Your task to perform on an android device: change the clock display to digital Image 0: 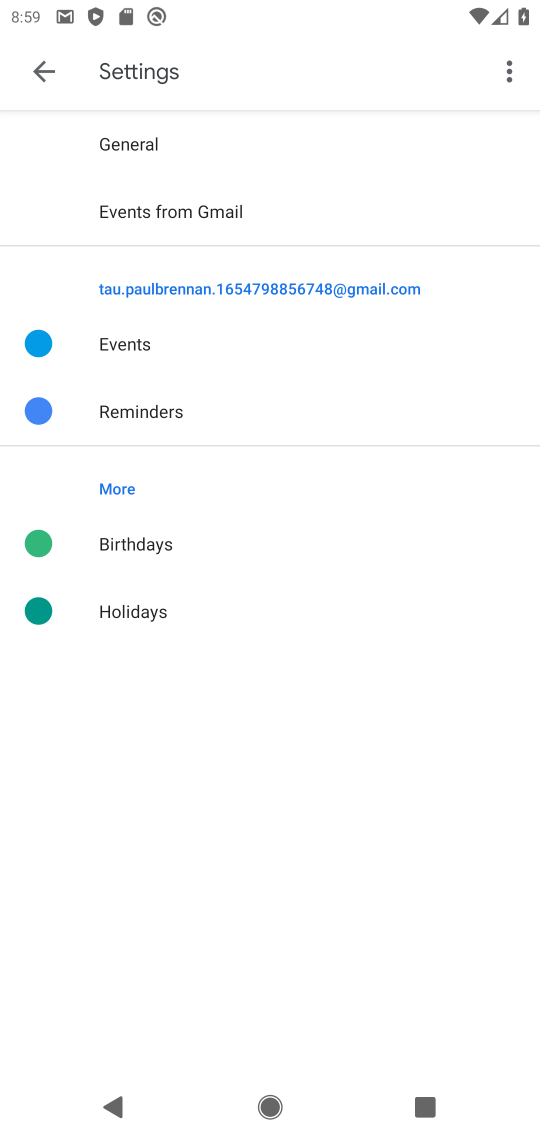
Step 0: press home button
Your task to perform on an android device: change the clock display to digital Image 1: 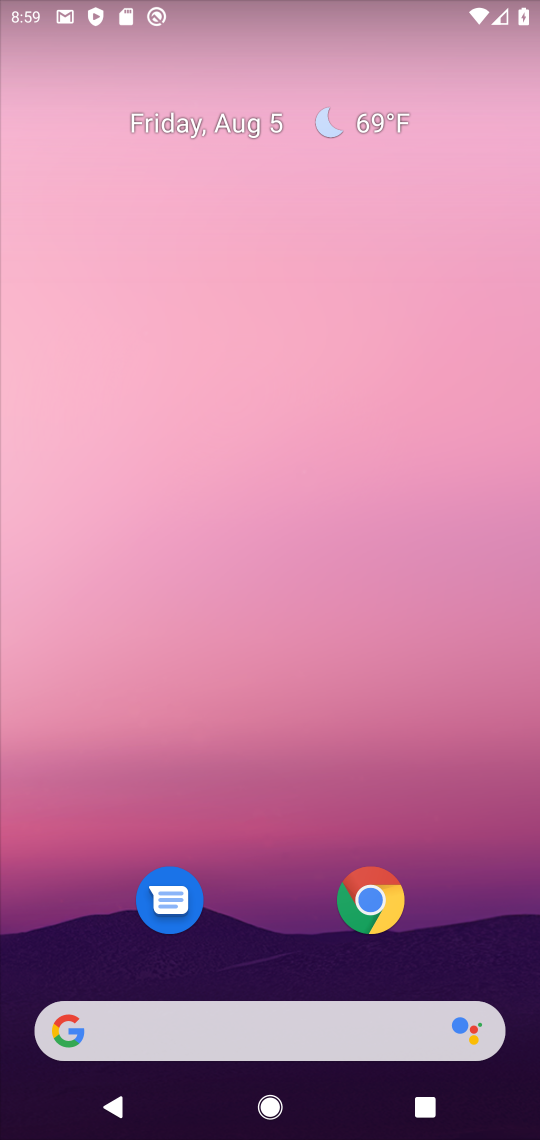
Step 1: drag from (226, 982) to (218, 341)
Your task to perform on an android device: change the clock display to digital Image 2: 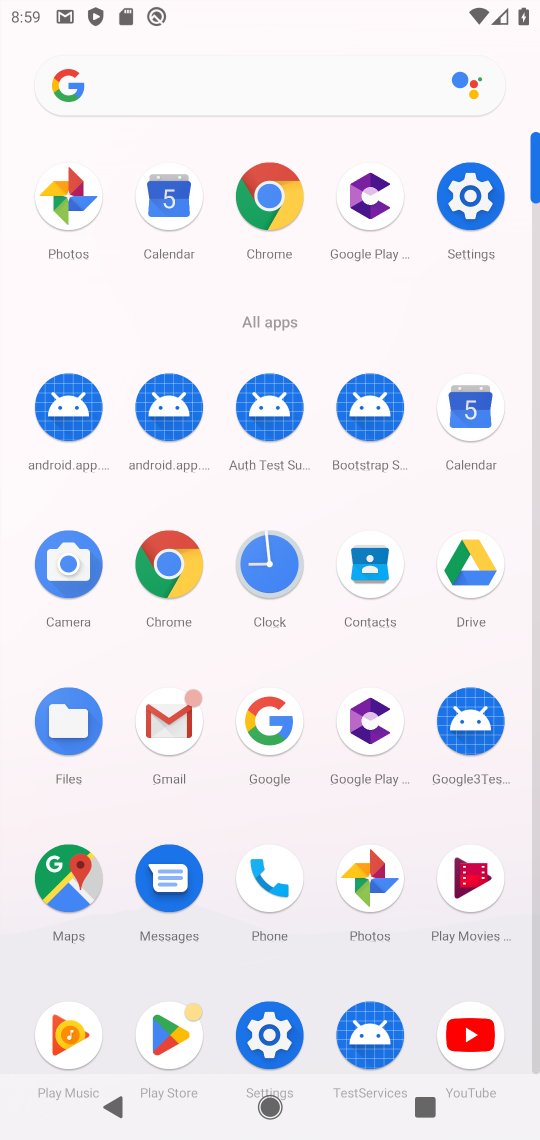
Step 2: click (279, 574)
Your task to perform on an android device: change the clock display to digital Image 3: 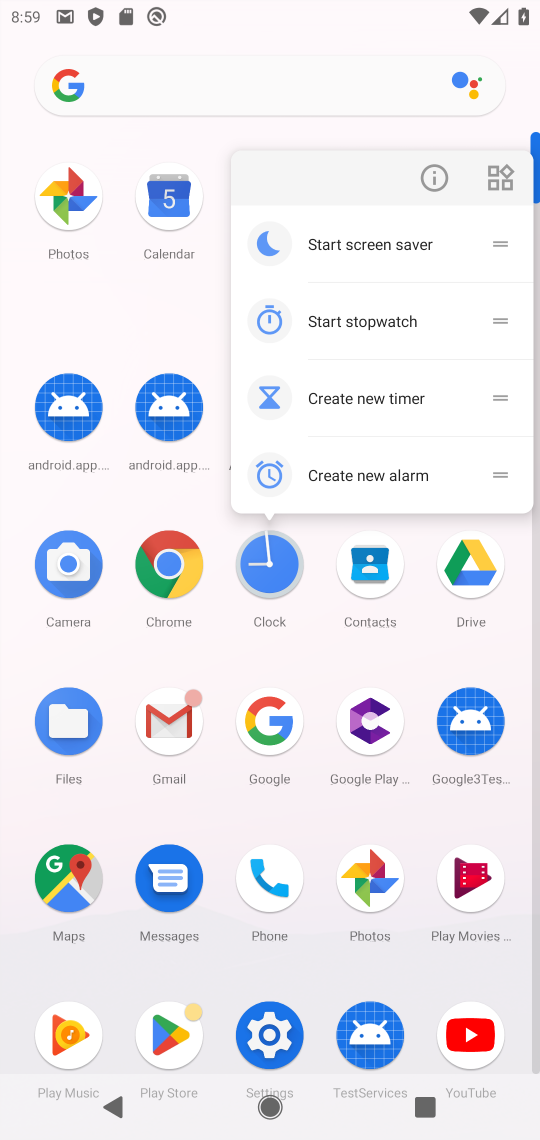
Step 3: click (279, 574)
Your task to perform on an android device: change the clock display to digital Image 4: 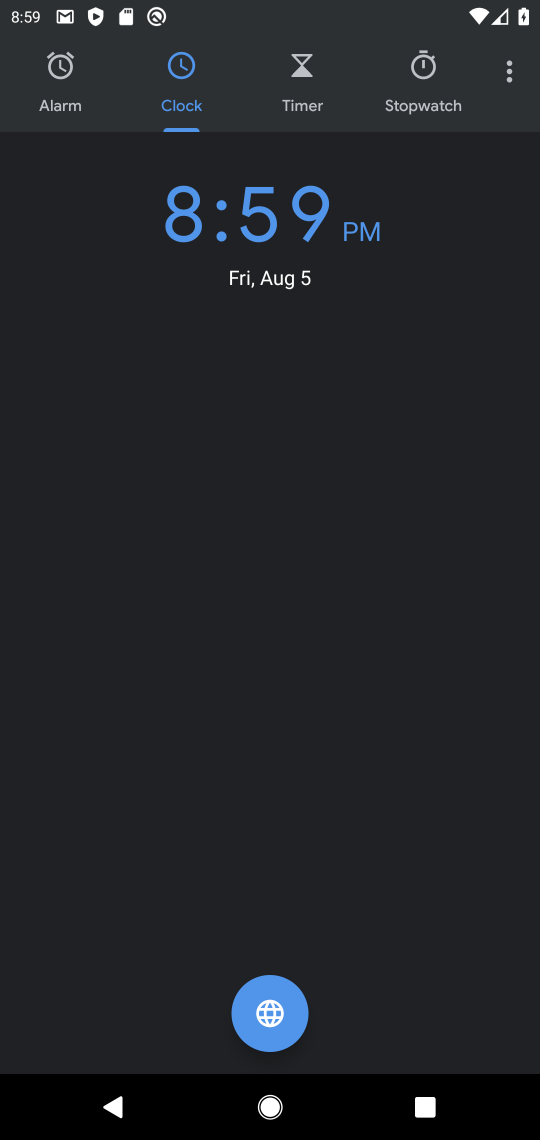
Step 4: click (51, 91)
Your task to perform on an android device: change the clock display to digital Image 5: 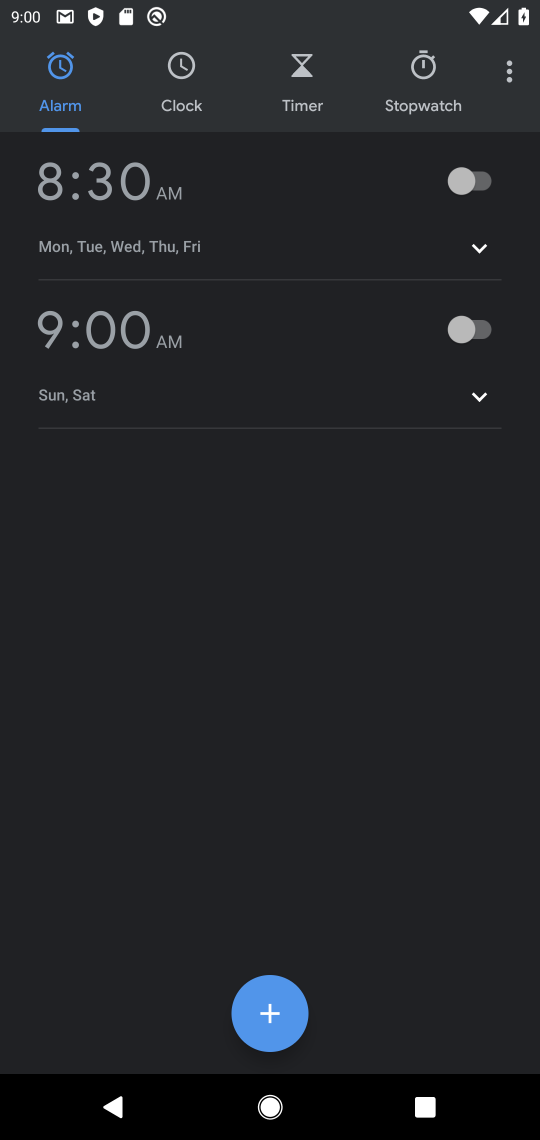
Step 5: click (507, 73)
Your task to perform on an android device: change the clock display to digital Image 6: 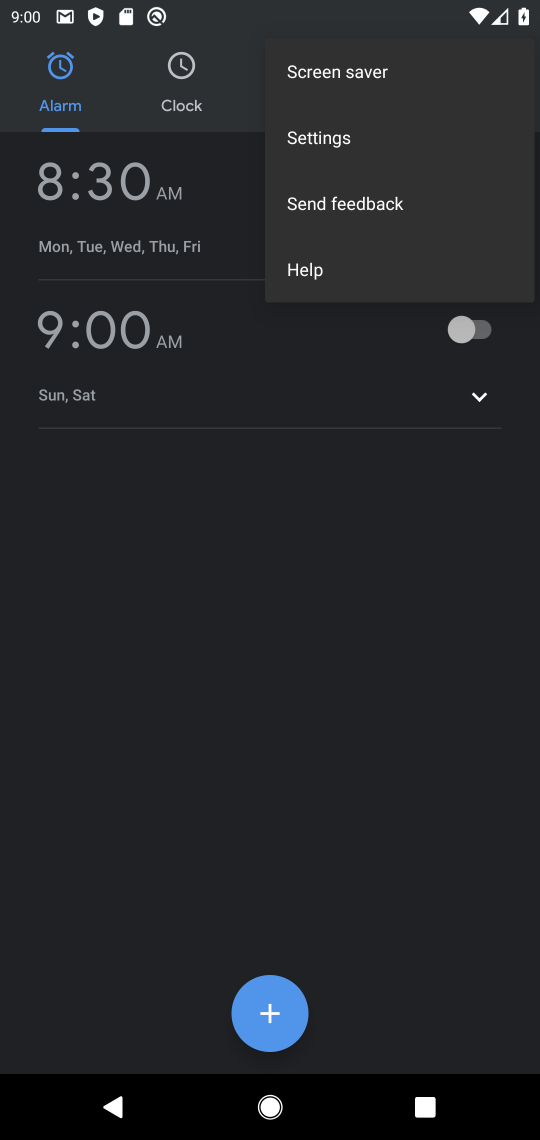
Step 6: click (375, 148)
Your task to perform on an android device: change the clock display to digital Image 7: 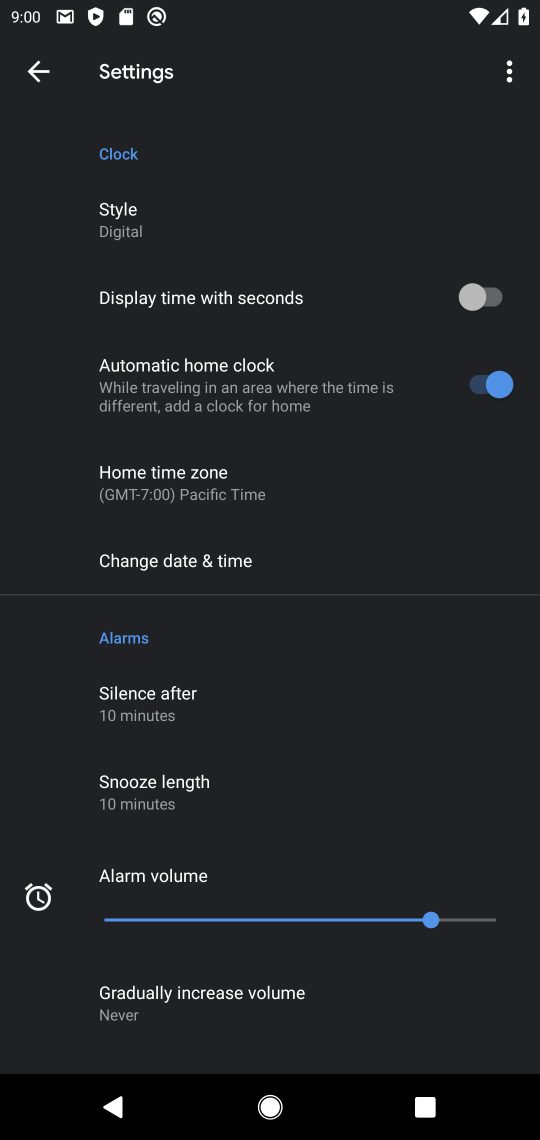
Step 7: task complete